Your task to perform on an android device: turn off notifications in google photos Image 0: 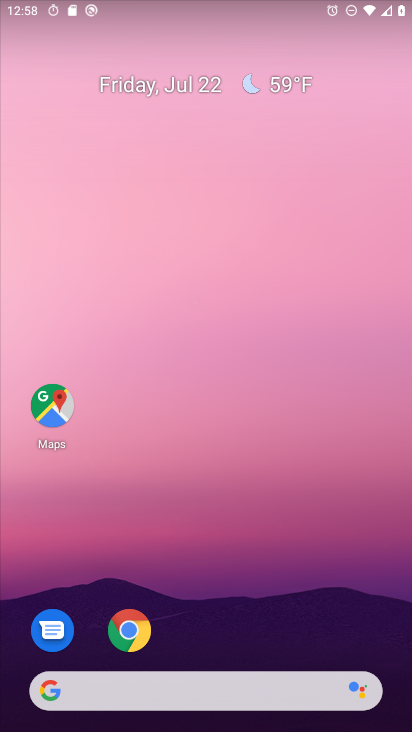
Step 0: drag from (190, 646) to (244, 34)
Your task to perform on an android device: turn off notifications in google photos Image 1: 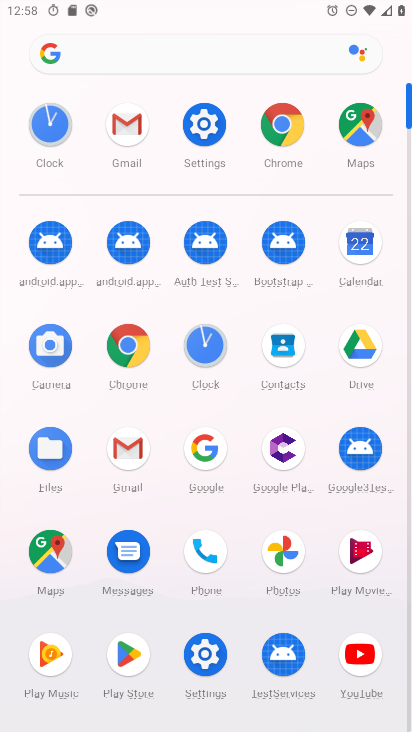
Step 1: click (283, 559)
Your task to perform on an android device: turn off notifications in google photos Image 2: 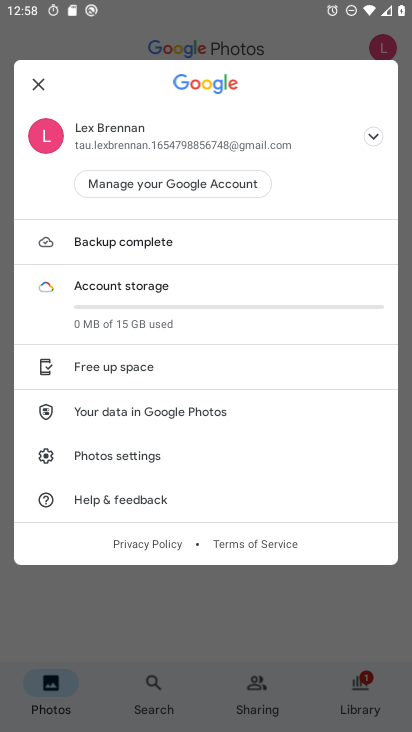
Step 2: click (98, 455)
Your task to perform on an android device: turn off notifications in google photos Image 3: 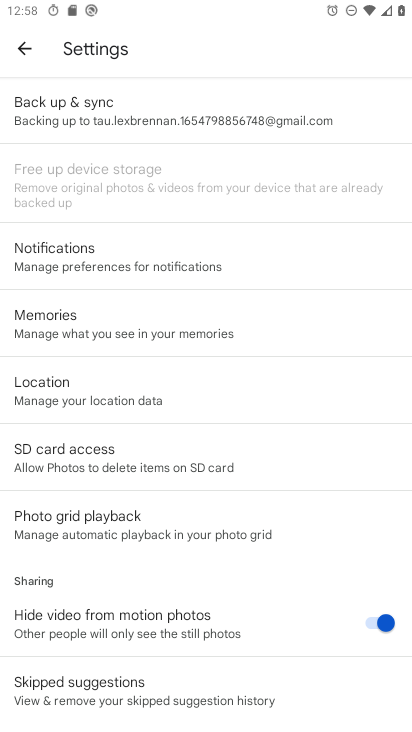
Step 3: click (68, 267)
Your task to perform on an android device: turn off notifications in google photos Image 4: 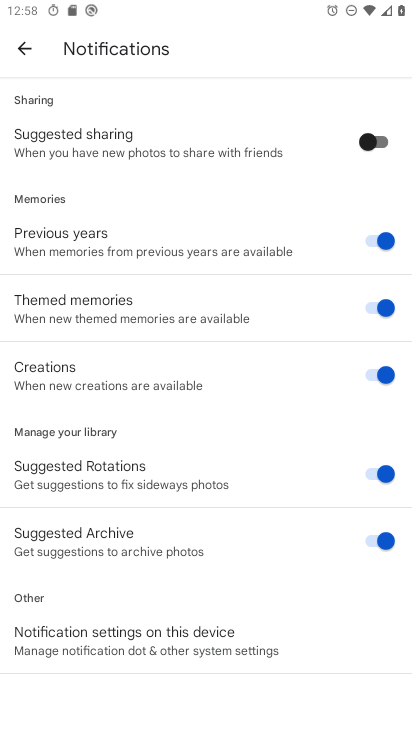
Step 4: task complete